Your task to perform on an android device: change alarm snooze length Image 0: 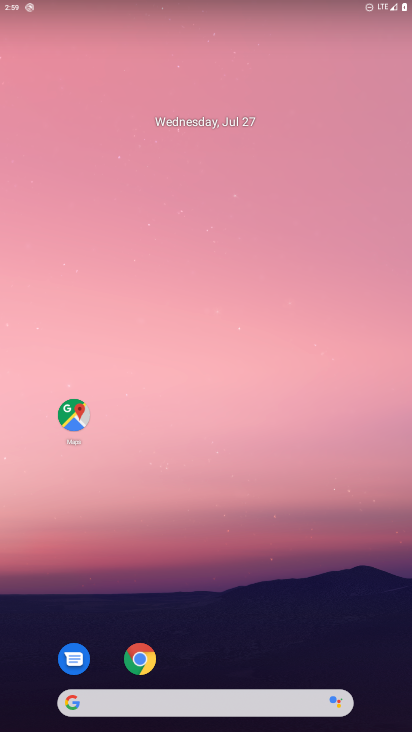
Step 0: drag from (225, 665) to (221, 590)
Your task to perform on an android device: change alarm snooze length Image 1: 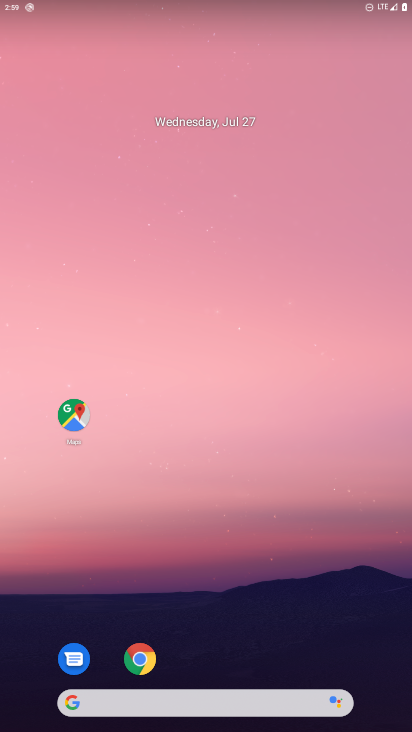
Step 1: drag from (221, 668) to (302, 301)
Your task to perform on an android device: change alarm snooze length Image 2: 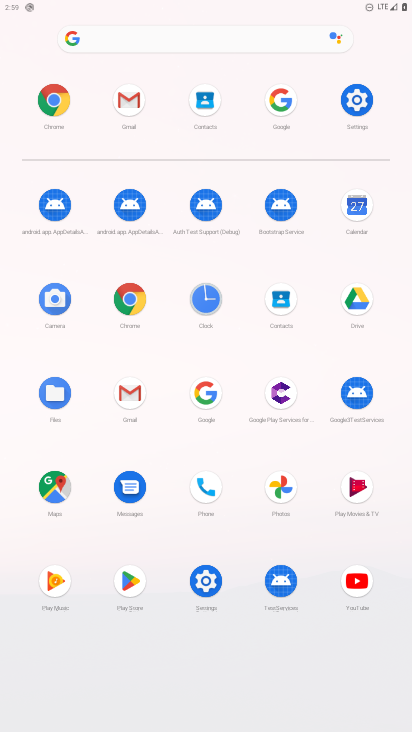
Step 2: click (206, 299)
Your task to perform on an android device: change alarm snooze length Image 3: 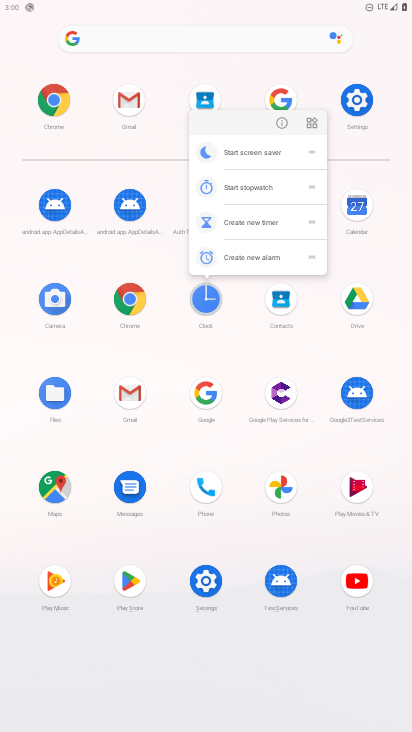
Step 3: click (205, 302)
Your task to perform on an android device: change alarm snooze length Image 4: 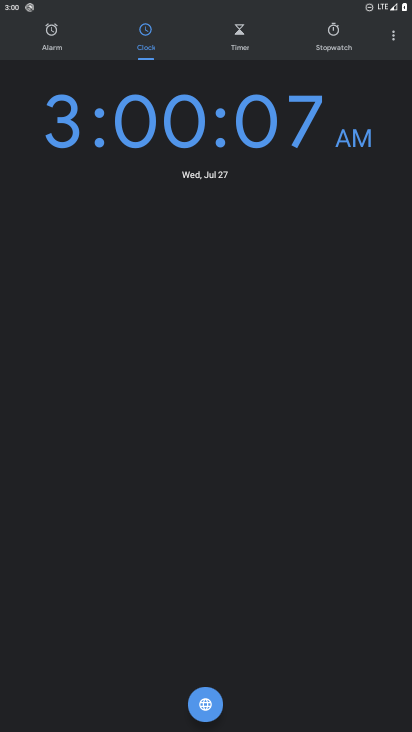
Step 4: click (50, 44)
Your task to perform on an android device: change alarm snooze length Image 5: 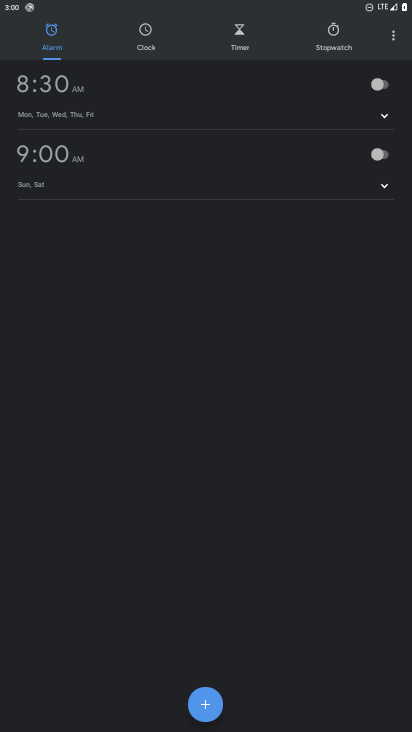
Step 5: click (55, 97)
Your task to perform on an android device: change alarm snooze length Image 6: 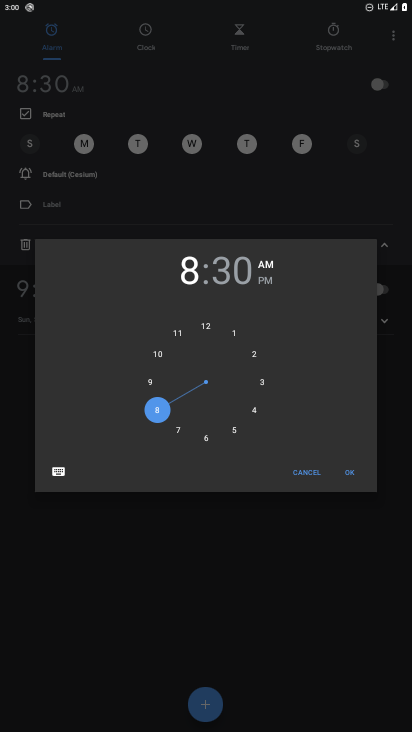
Step 6: click (303, 476)
Your task to perform on an android device: change alarm snooze length Image 7: 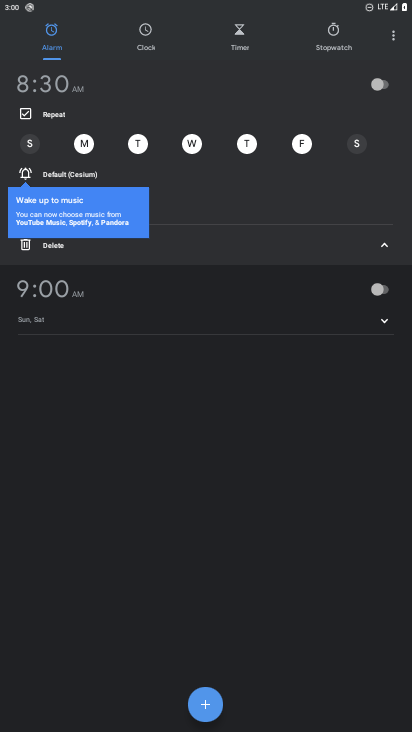
Step 7: click (392, 37)
Your task to perform on an android device: change alarm snooze length Image 8: 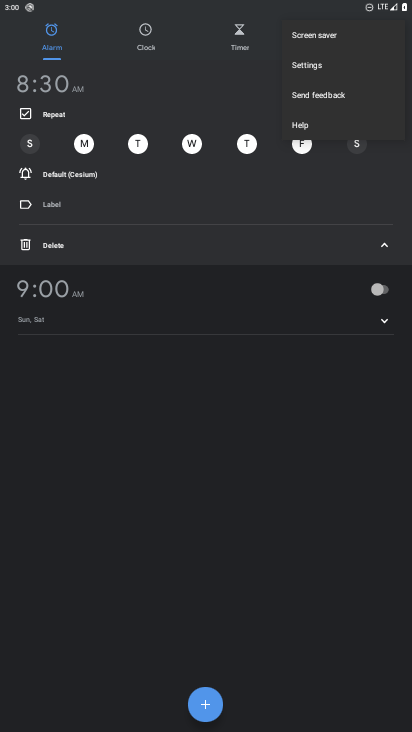
Step 8: click (358, 69)
Your task to perform on an android device: change alarm snooze length Image 9: 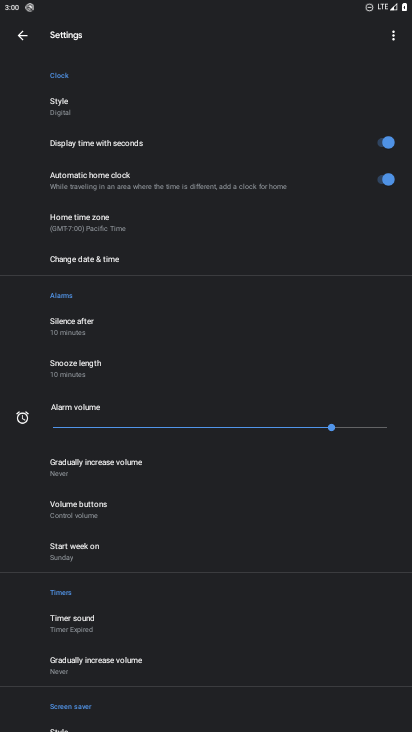
Step 9: click (75, 372)
Your task to perform on an android device: change alarm snooze length Image 10: 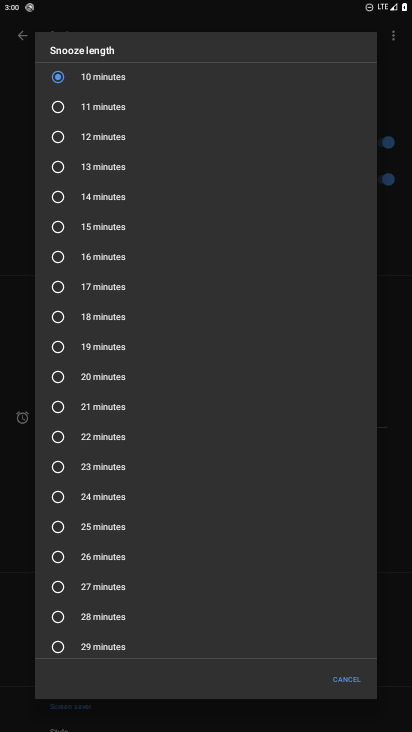
Step 10: click (101, 223)
Your task to perform on an android device: change alarm snooze length Image 11: 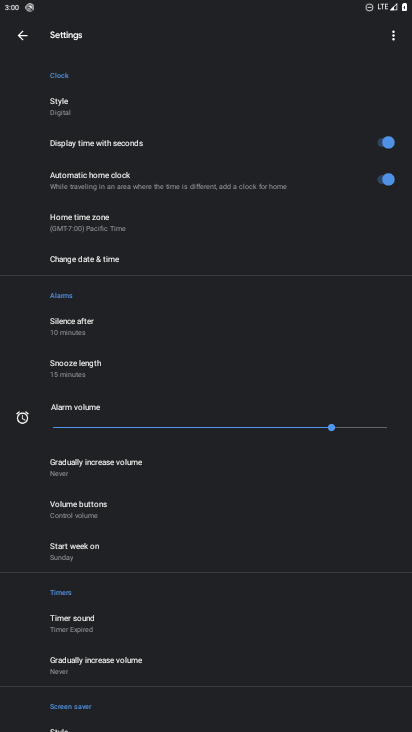
Step 11: click (91, 375)
Your task to perform on an android device: change alarm snooze length Image 12: 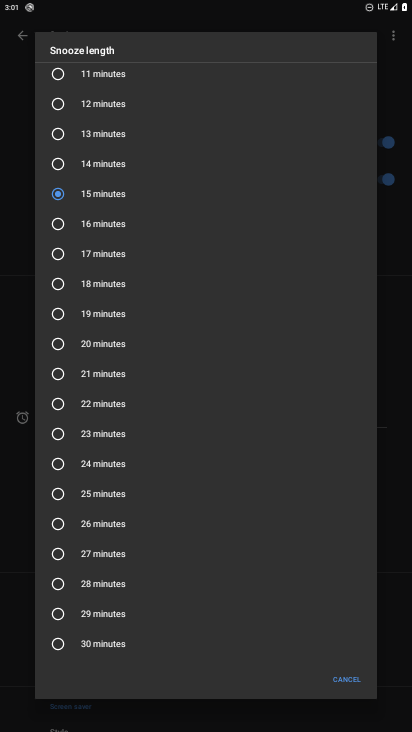
Step 12: click (124, 195)
Your task to perform on an android device: change alarm snooze length Image 13: 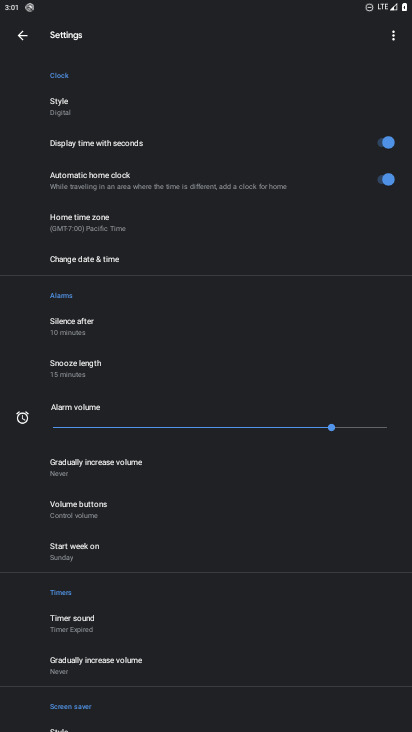
Step 13: drag from (118, 253) to (115, 323)
Your task to perform on an android device: change alarm snooze length Image 14: 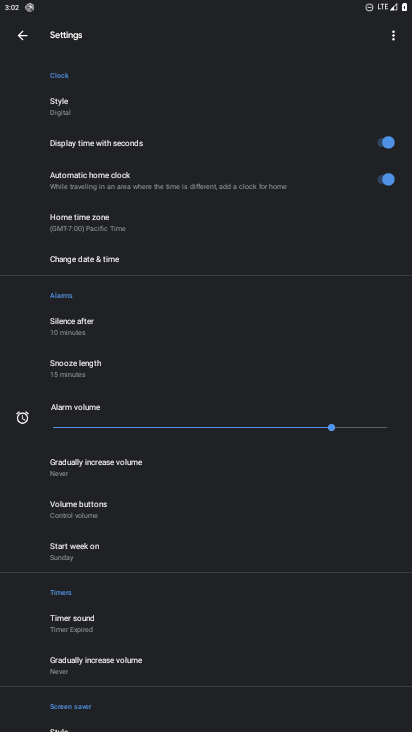
Step 14: click (94, 375)
Your task to perform on an android device: change alarm snooze length Image 15: 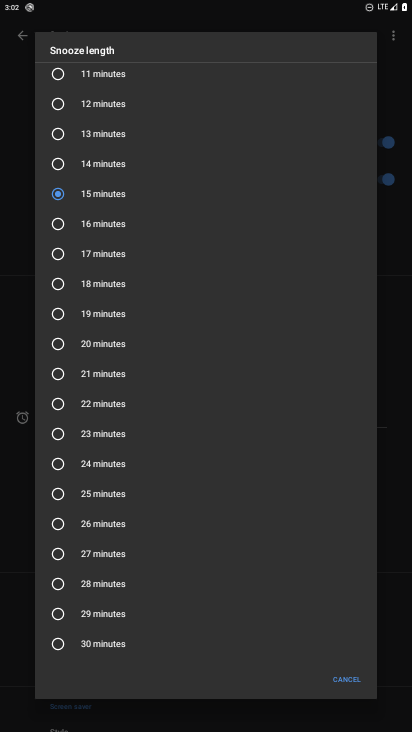
Step 15: drag from (175, 140) to (235, 495)
Your task to perform on an android device: change alarm snooze length Image 16: 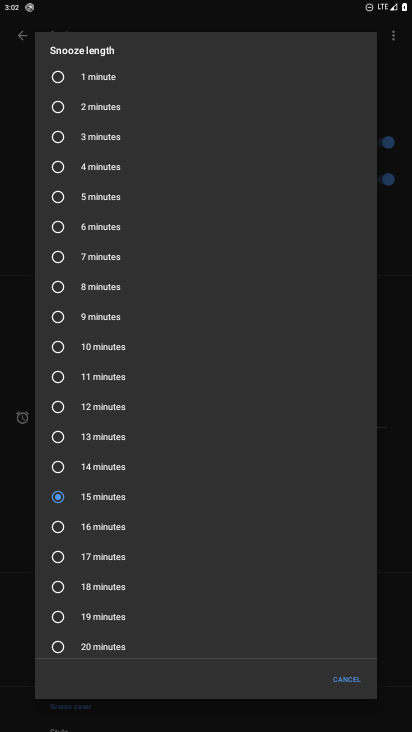
Step 16: click (92, 191)
Your task to perform on an android device: change alarm snooze length Image 17: 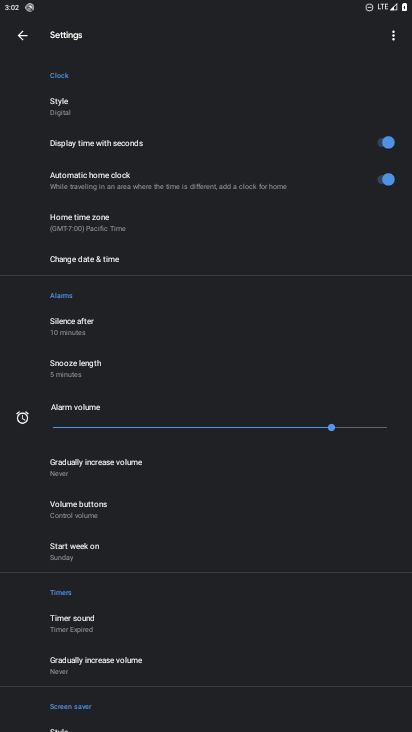
Step 17: click (36, 371)
Your task to perform on an android device: change alarm snooze length Image 18: 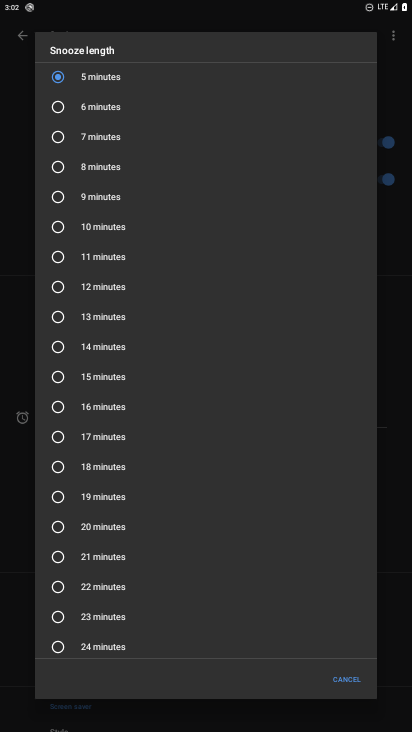
Step 18: click (102, 138)
Your task to perform on an android device: change alarm snooze length Image 19: 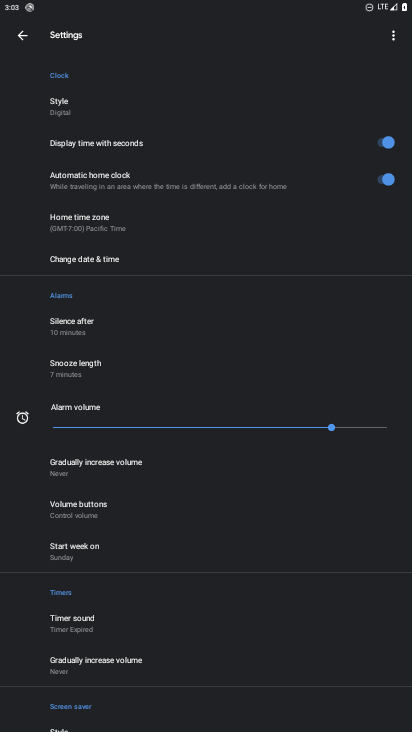
Step 19: task complete